Your task to perform on an android device: clear history in the chrome app Image 0: 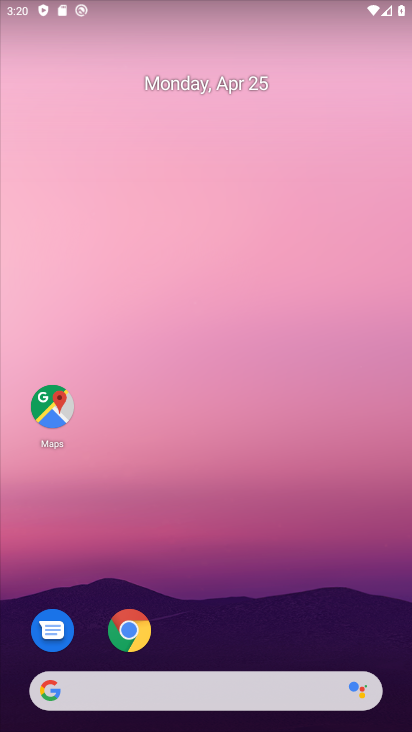
Step 0: click (135, 643)
Your task to perform on an android device: clear history in the chrome app Image 1: 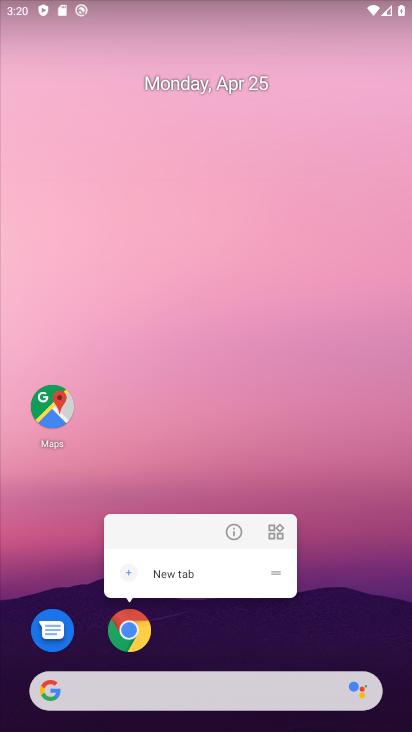
Step 1: click (119, 632)
Your task to perform on an android device: clear history in the chrome app Image 2: 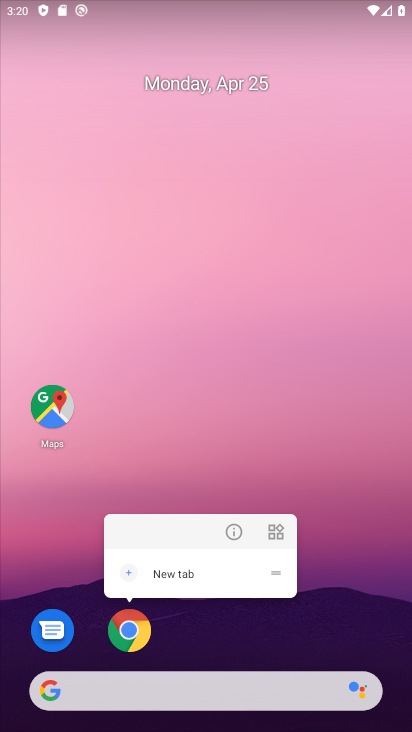
Step 2: click (135, 631)
Your task to perform on an android device: clear history in the chrome app Image 3: 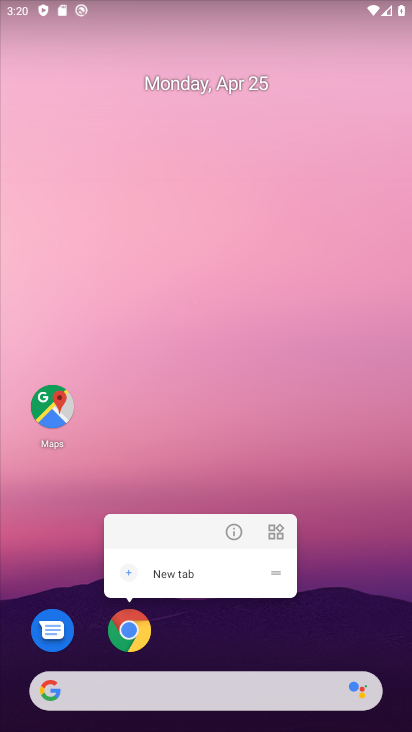
Step 3: click (135, 631)
Your task to perform on an android device: clear history in the chrome app Image 4: 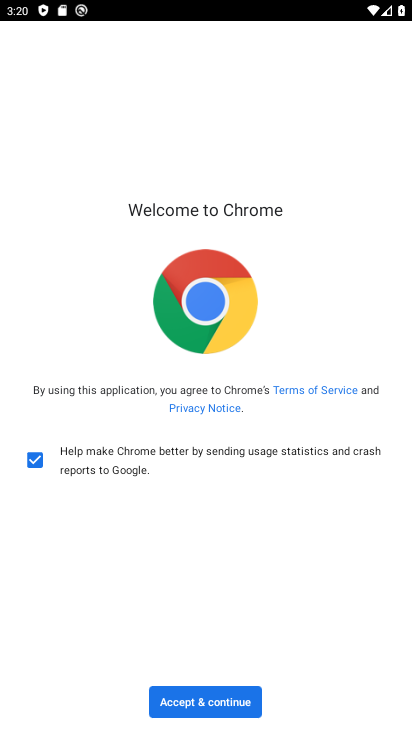
Step 4: click (205, 696)
Your task to perform on an android device: clear history in the chrome app Image 5: 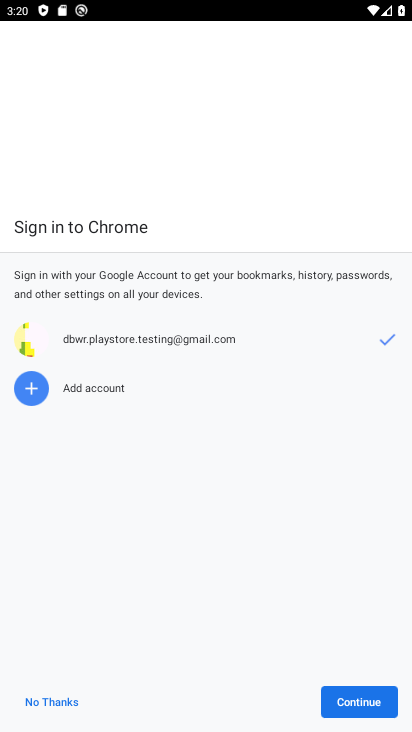
Step 5: click (348, 699)
Your task to perform on an android device: clear history in the chrome app Image 6: 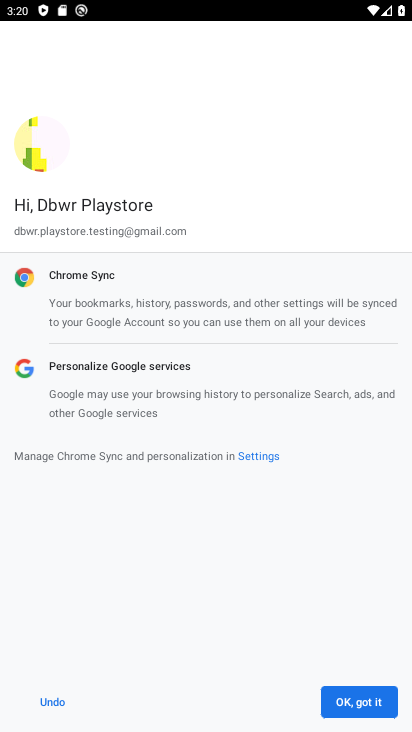
Step 6: click (348, 699)
Your task to perform on an android device: clear history in the chrome app Image 7: 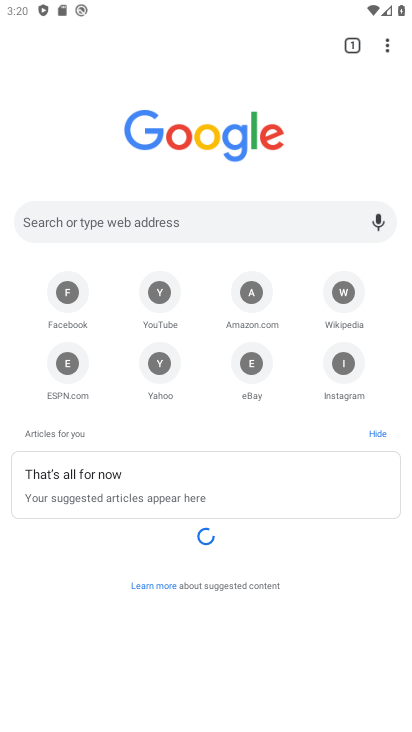
Step 7: click (387, 46)
Your task to perform on an android device: clear history in the chrome app Image 8: 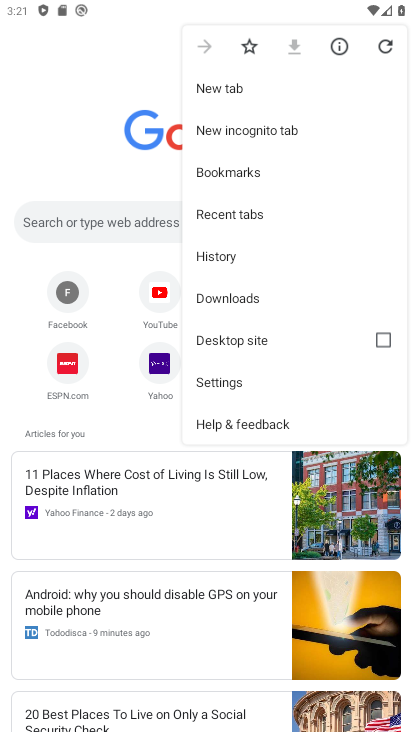
Step 8: click (225, 253)
Your task to perform on an android device: clear history in the chrome app Image 9: 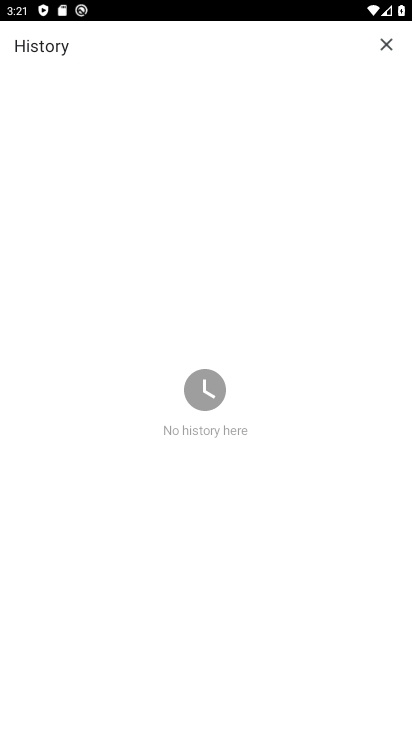
Step 9: task complete